Your task to perform on an android device: Do I have any events today? Image 0: 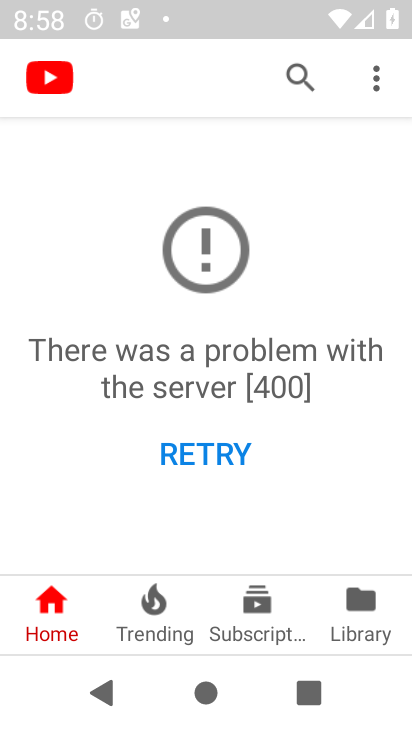
Step 0: press home button
Your task to perform on an android device: Do I have any events today? Image 1: 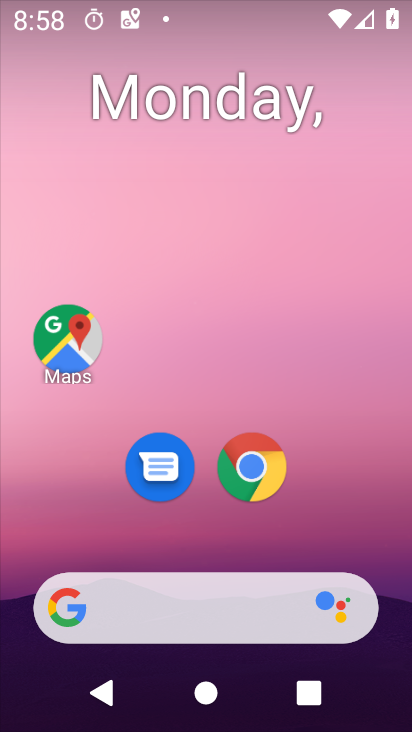
Step 1: drag from (207, 524) to (256, 38)
Your task to perform on an android device: Do I have any events today? Image 2: 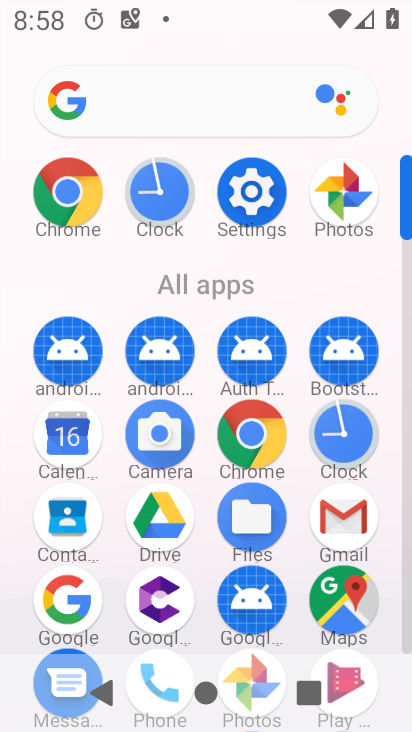
Step 2: click (68, 442)
Your task to perform on an android device: Do I have any events today? Image 3: 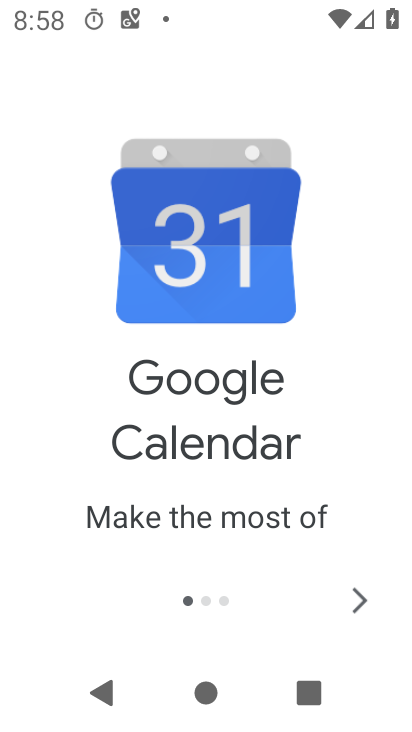
Step 3: click (365, 602)
Your task to perform on an android device: Do I have any events today? Image 4: 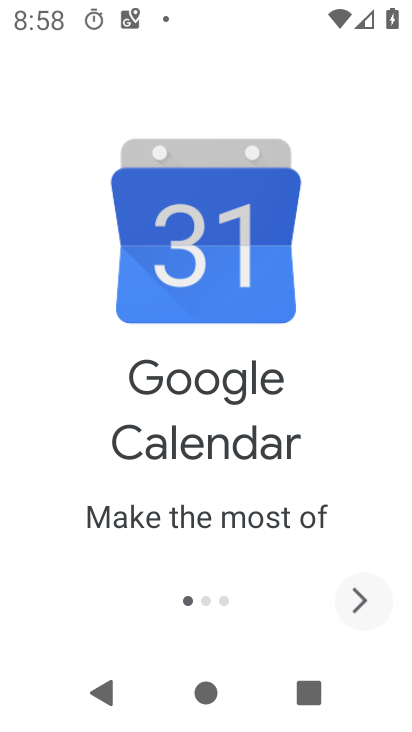
Step 4: click (365, 602)
Your task to perform on an android device: Do I have any events today? Image 5: 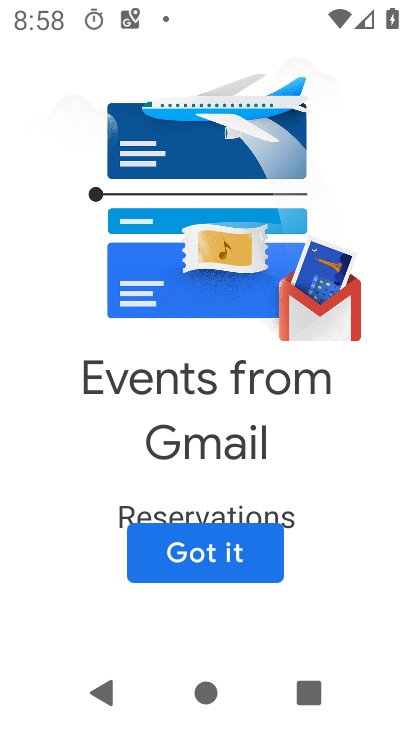
Step 5: click (231, 544)
Your task to perform on an android device: Do I have any events today? Image 6: 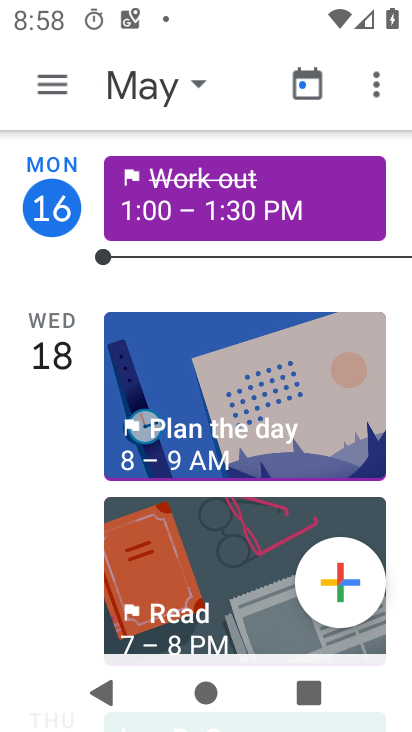
Step 6: click (198, 81)
Your task to perform on an android device: Do I have any events today? Image 7: 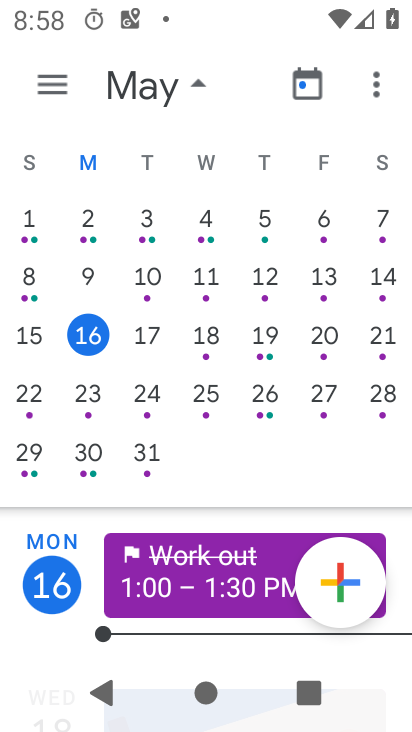
Step 7: click (150, 324)
Your task to perform on an android device: Do I have any events today? Image 8: 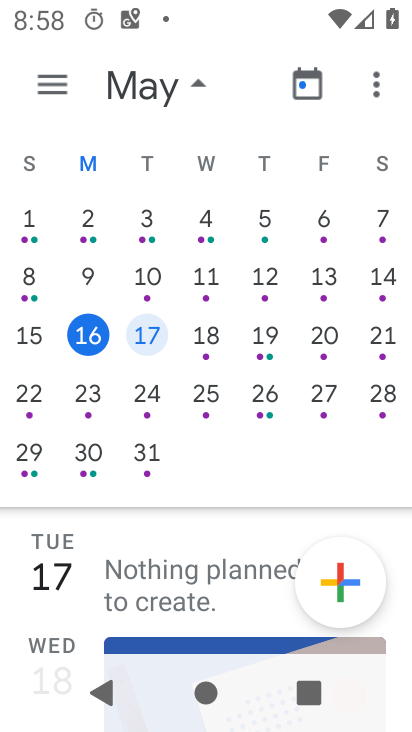
Step 8: task complete